Your task to perform on an android device: open app "Viber Messenger" (install if not already installed) Image 0: 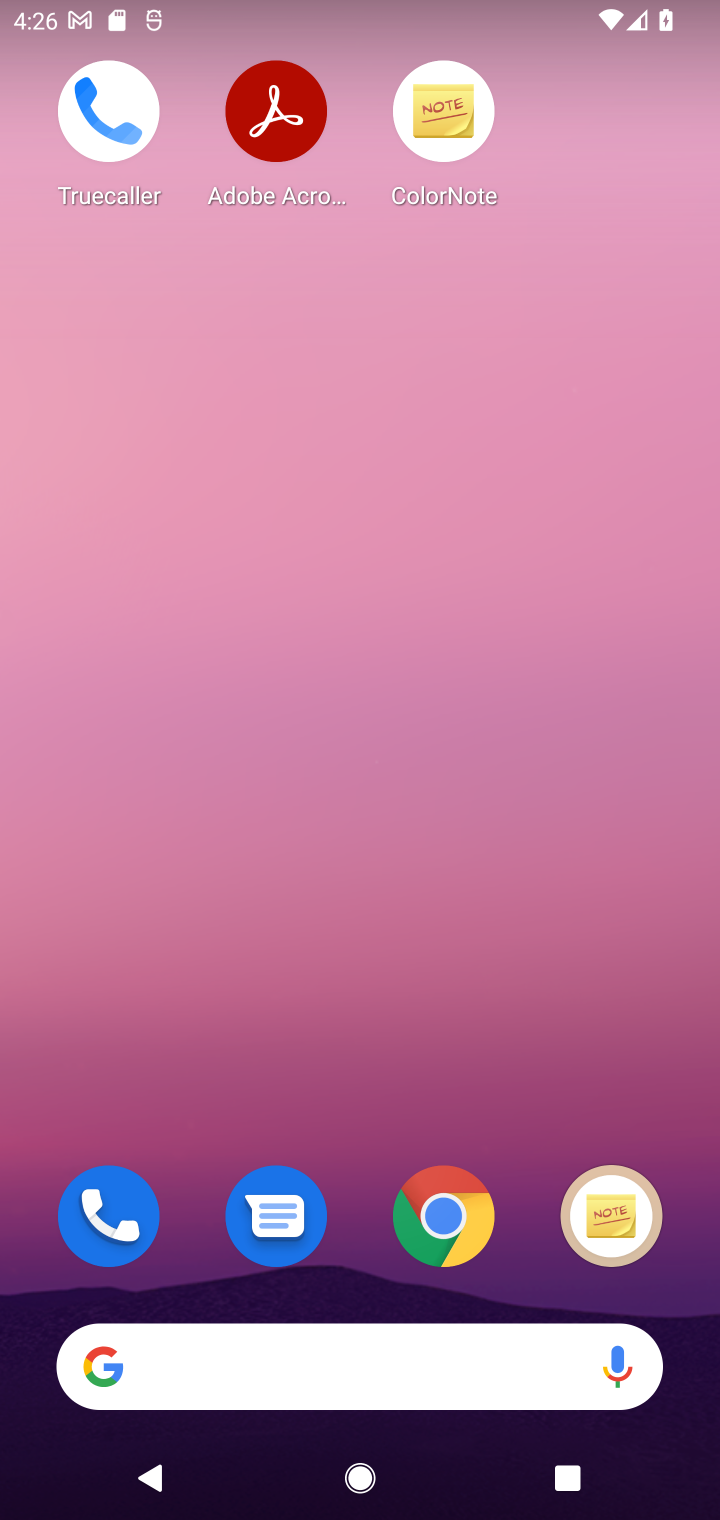
Step 0: drag from (517, 1276) to (483, 188)
Your task to perform on an android device: open app "Viber Messenger" (install if not already installed) Image 1: 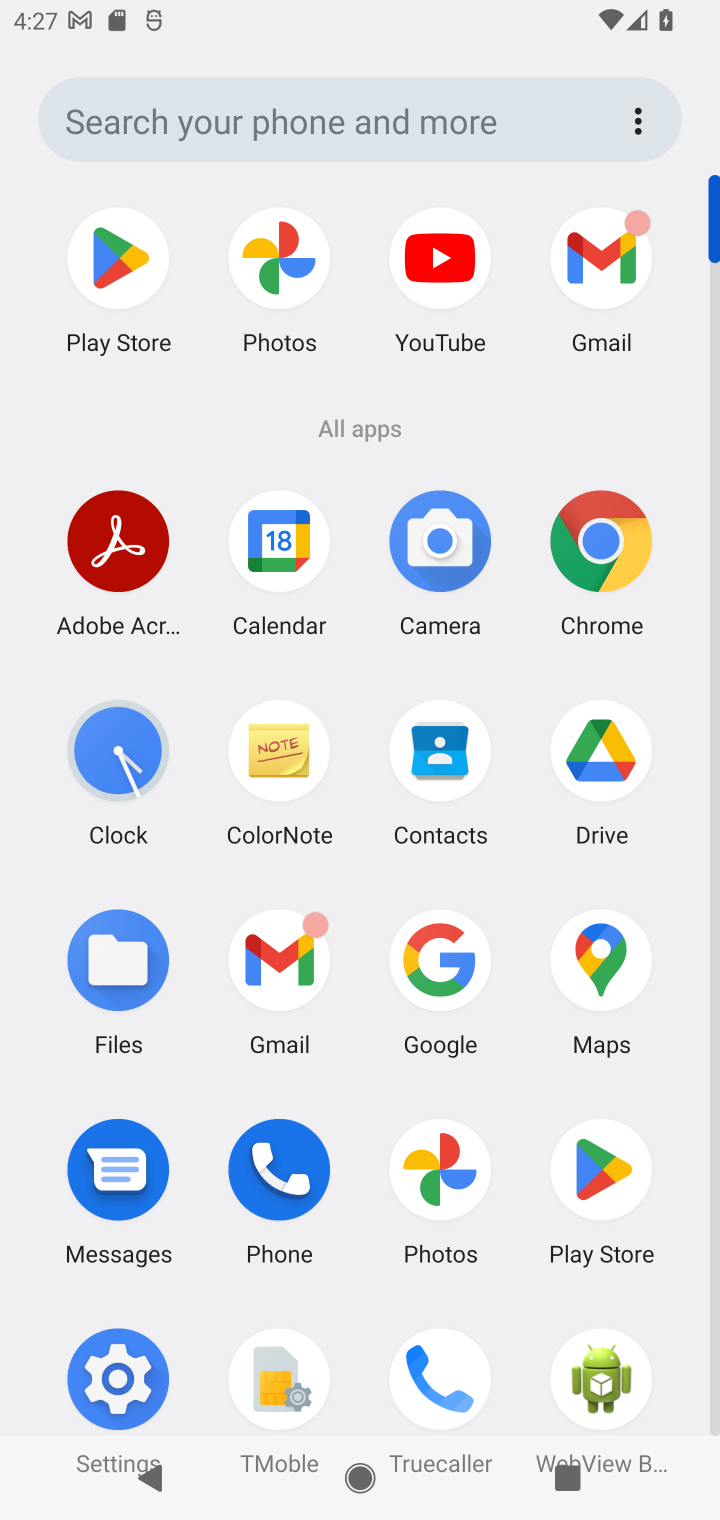
Step 1: click (607, 1170)
Your task to perform on an android device: open app "Viber Messenger" (install if not already installed) Image 2: 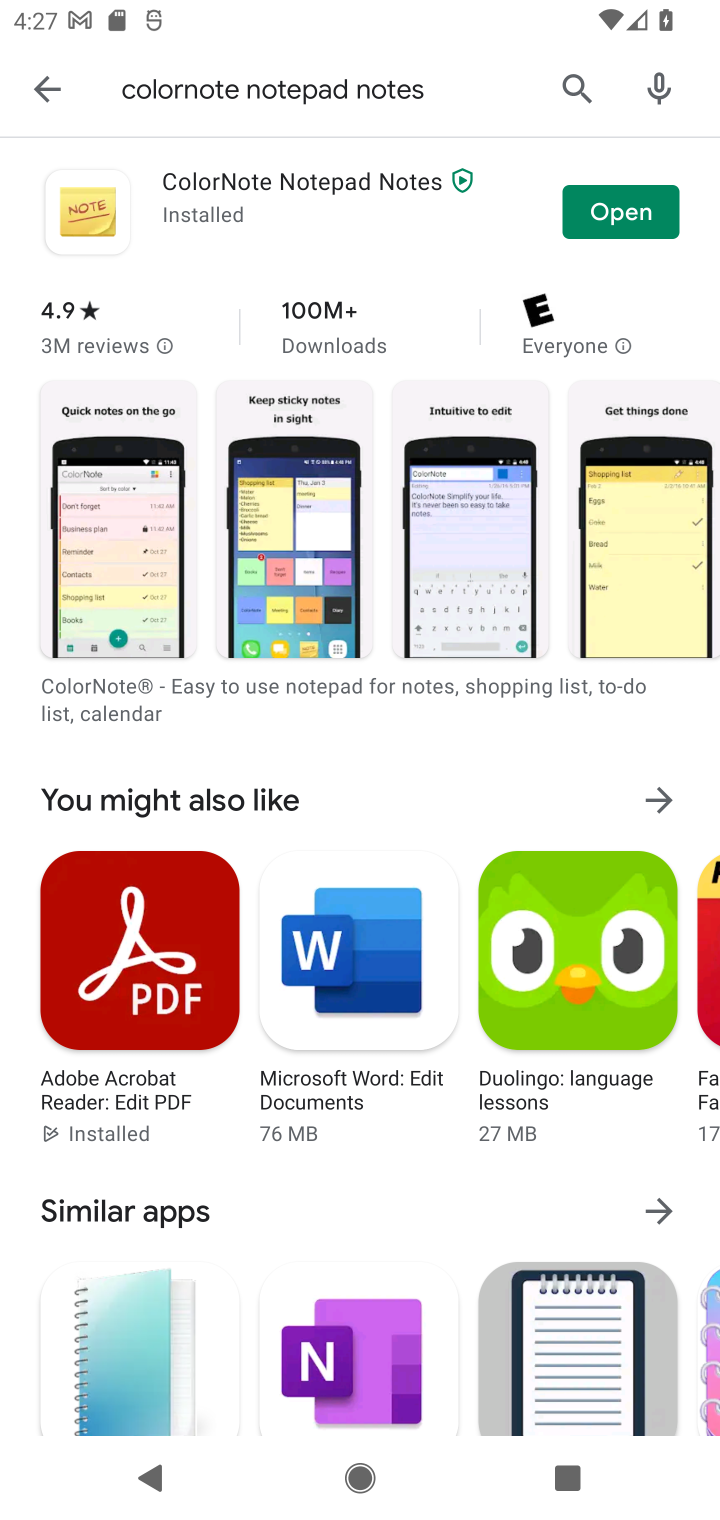
Step 2: click (572, 76)
Your task to perform on an android device: open app "Viber Messenger" (install if not already installed) Image 3: 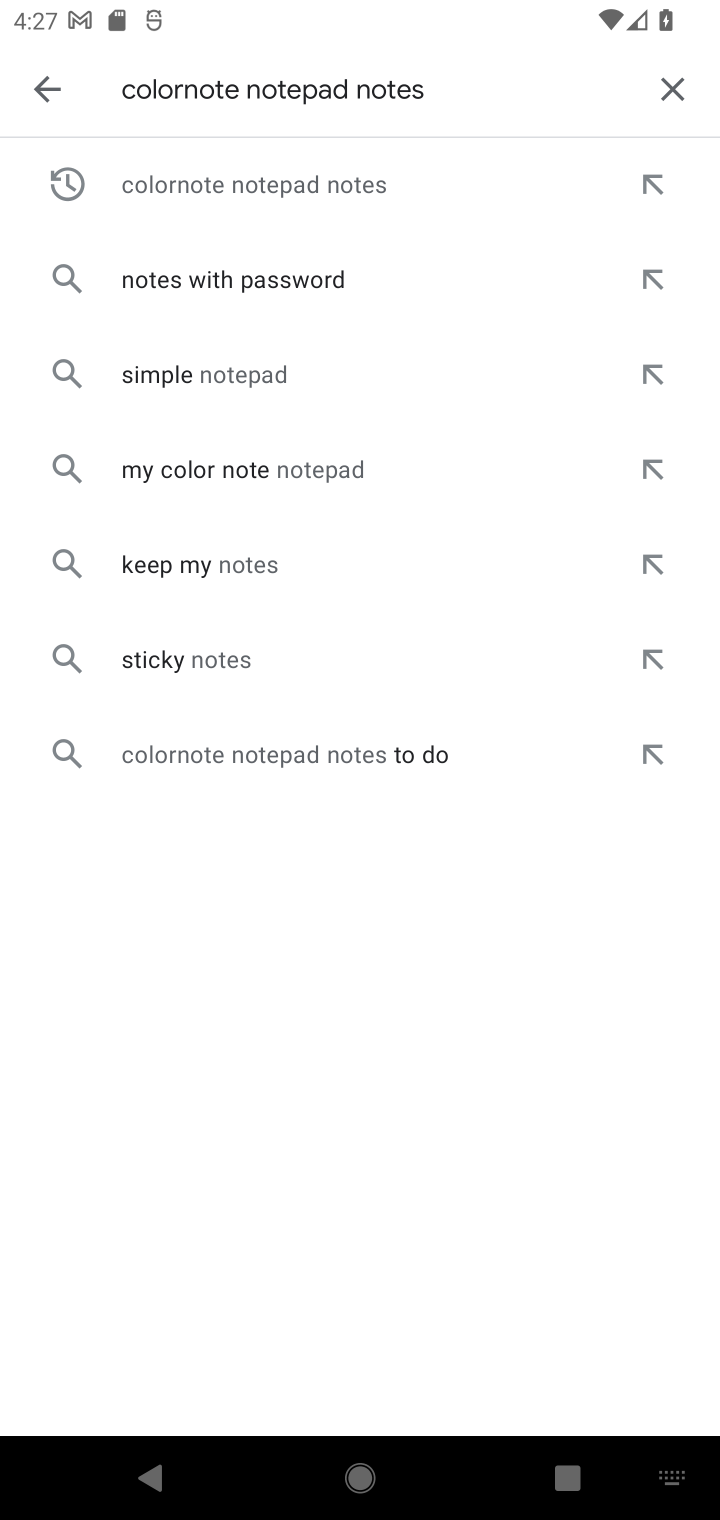
Step 3: click (665, 91)
Your task to perform on an android device: open app "Viber Messenger" (install if not already installed) Image 4: 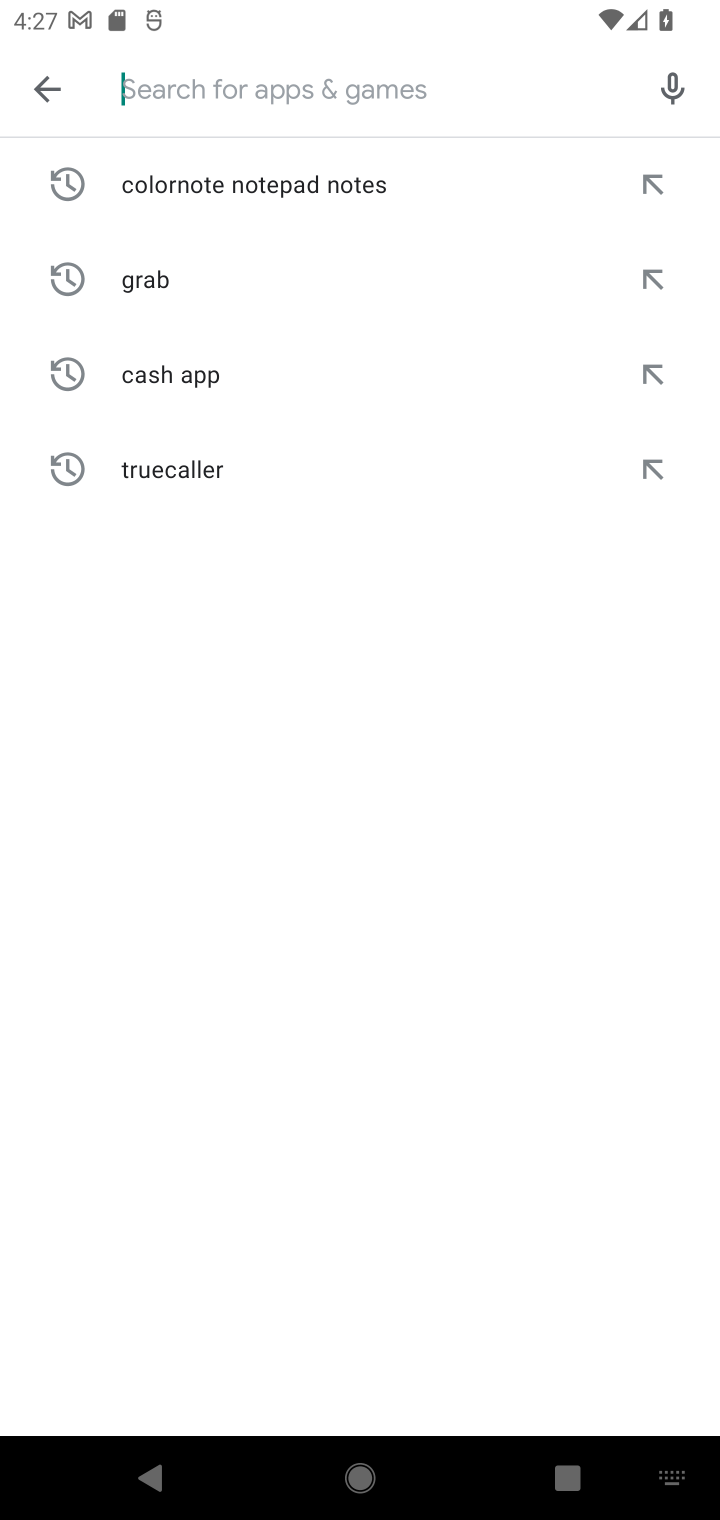
Step 4: type "Viber Messenger"
Your task to perform on an android device: open app "Viber Messenger" (install if not already installed) Image 5: 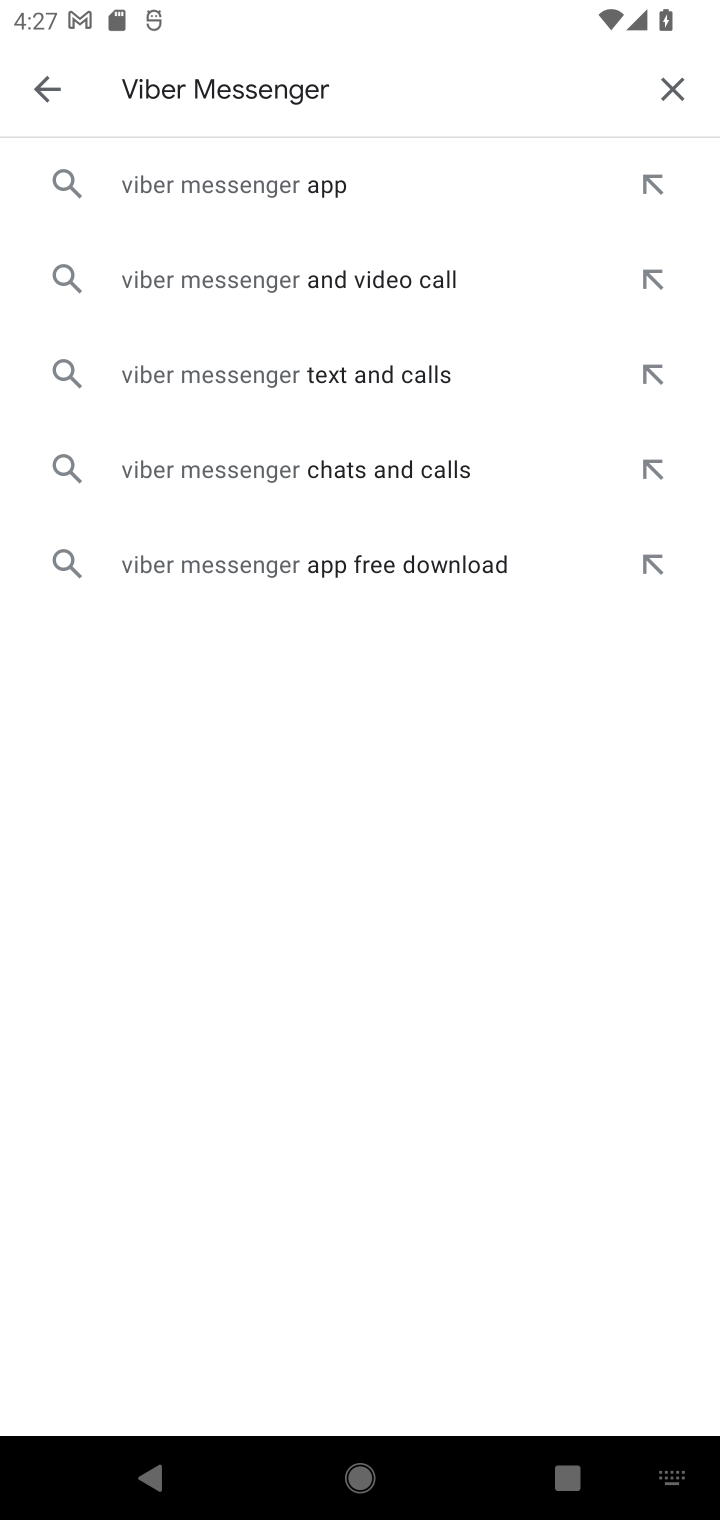
Step 5: click (193, 180)
Your task to perform on an android device: open app "Viber Messenger" (install if not already installed) Image 6: 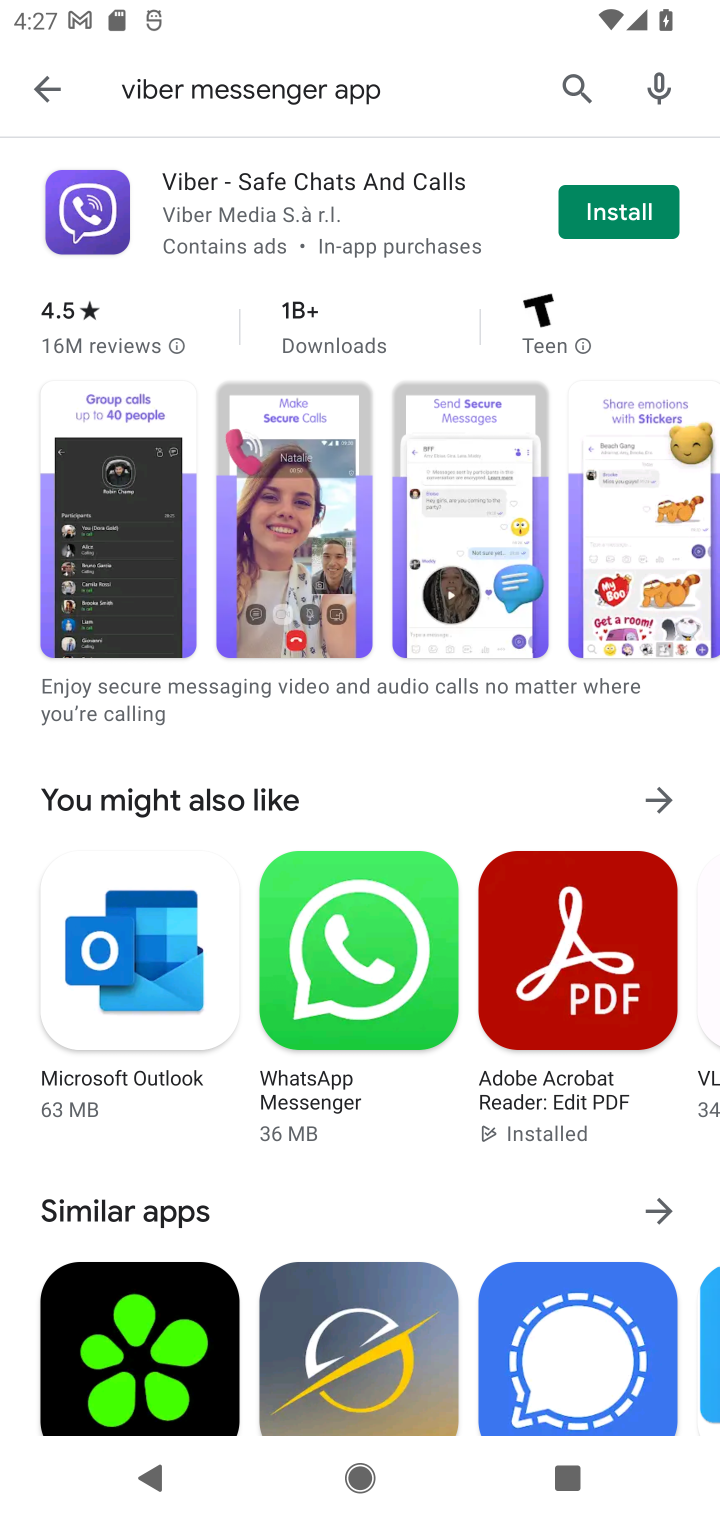
Step 6: click (625, 203)
Your task to perform on an android device: open app "Viber Messenger" (install if not already installed) Image 7: 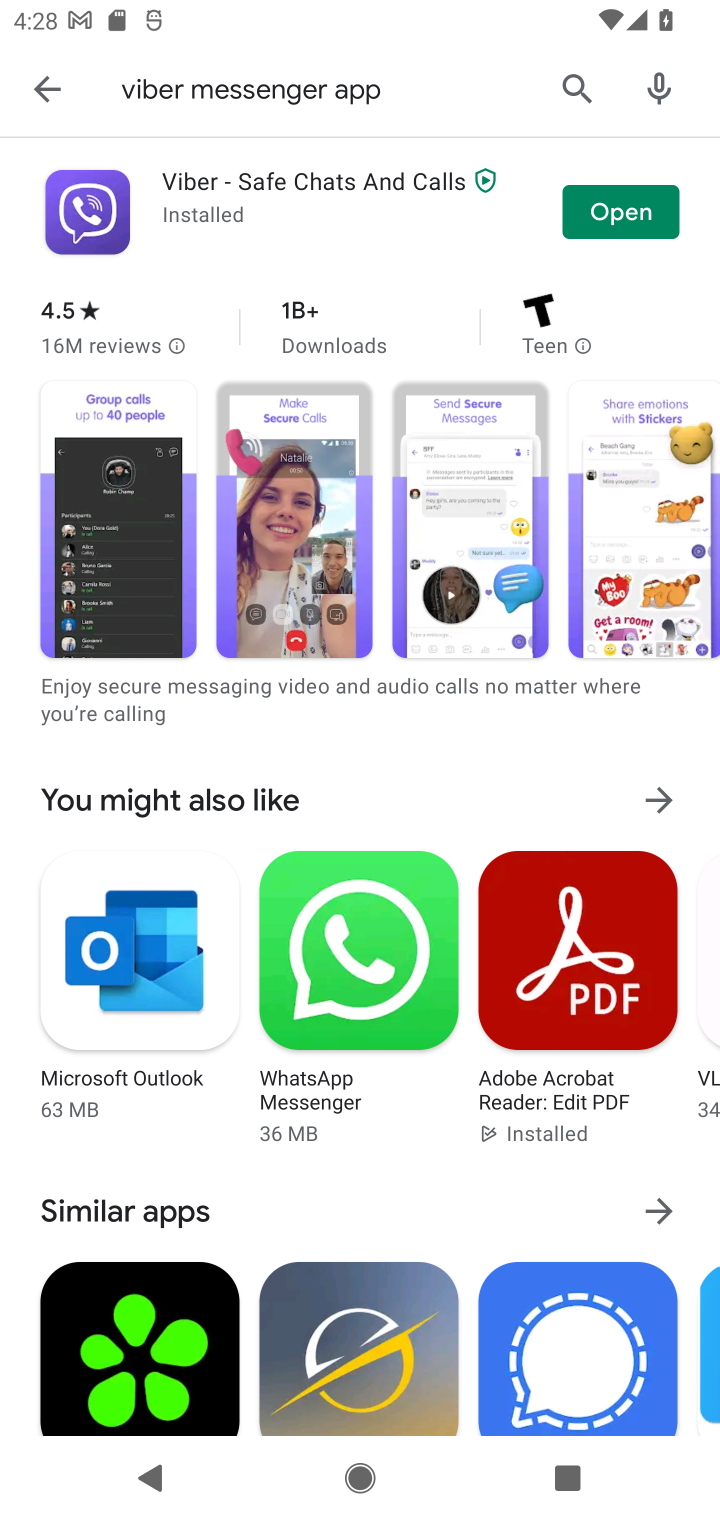
Step 7: click (625, 207)
Your task to perform on an android device: open app "Viber Messenger" (install if not already installed) Image 8: 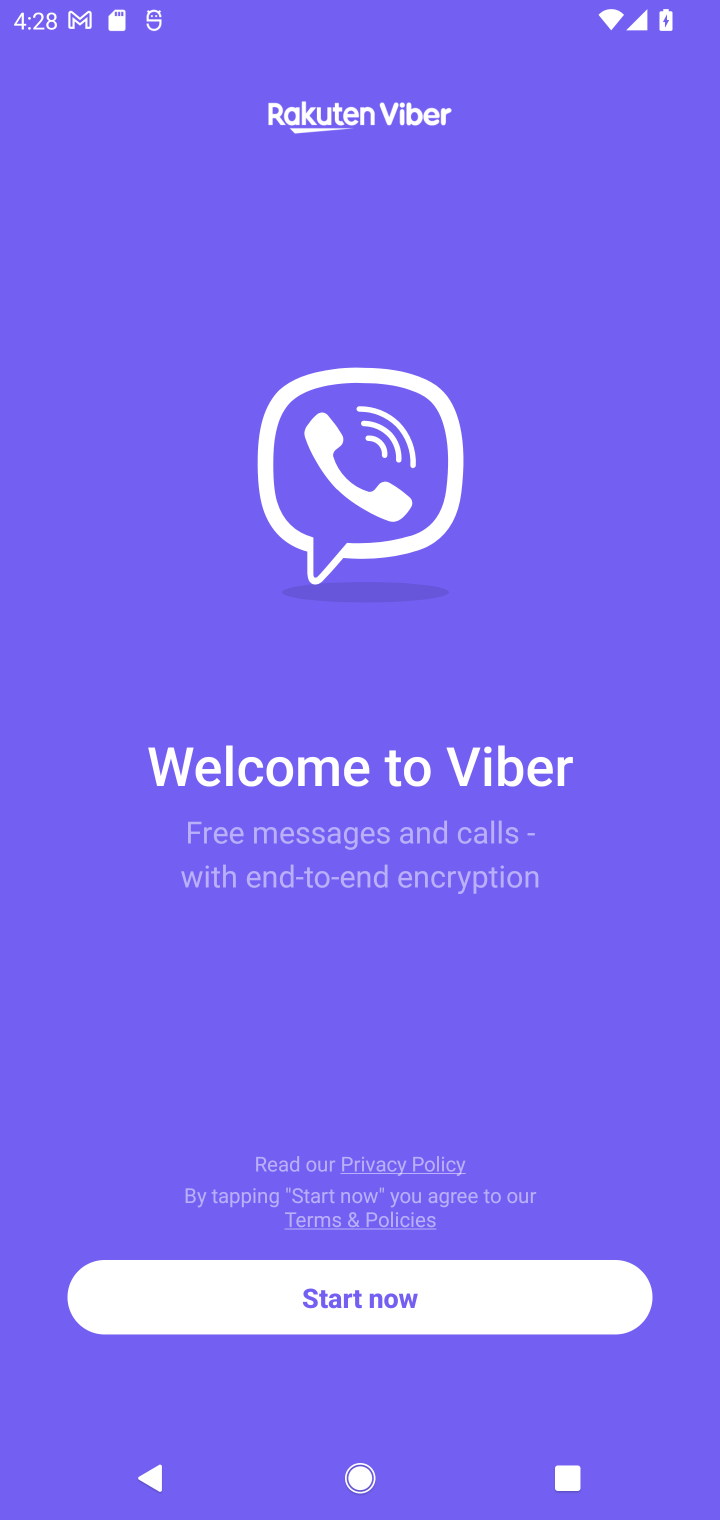
Step 8: task complete